Your task to perform on an android device: What's the weather? Image 0: 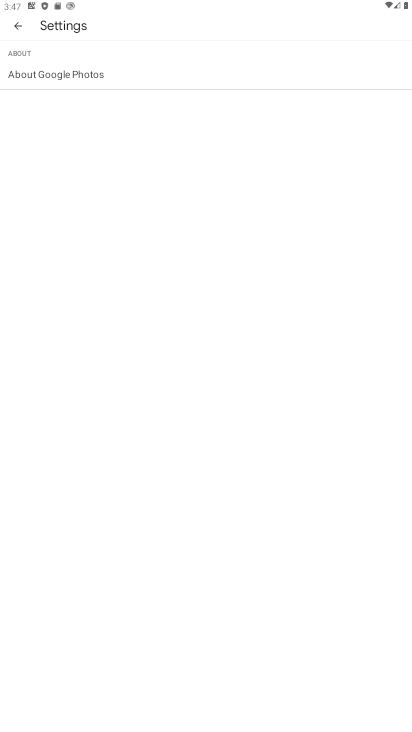
Step 0: press home button
Your task to perform on an android device: What's the weather? Image 1: 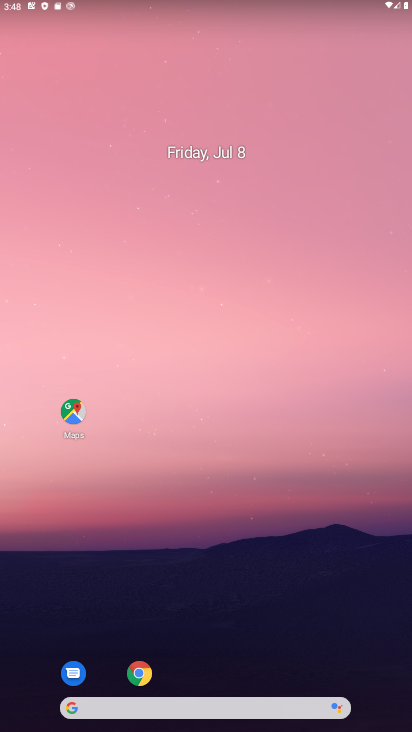
Step 1: click (146, 705)
Your task to perform on an android device: What's the weather? Image 2: 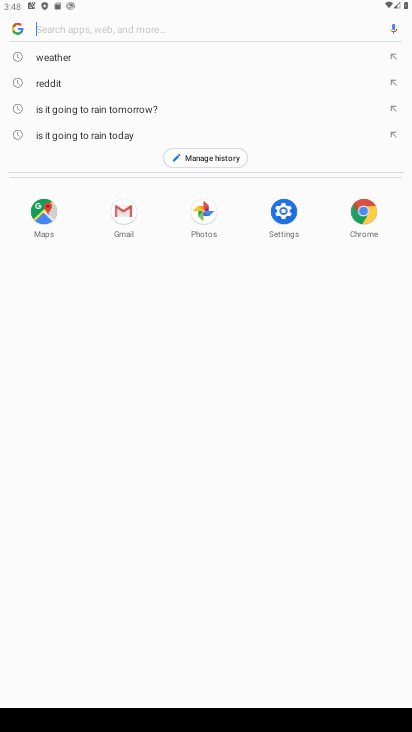
Step 2: click (61, 57)
Your task to perform on an android device: What's the weather? Image 3: 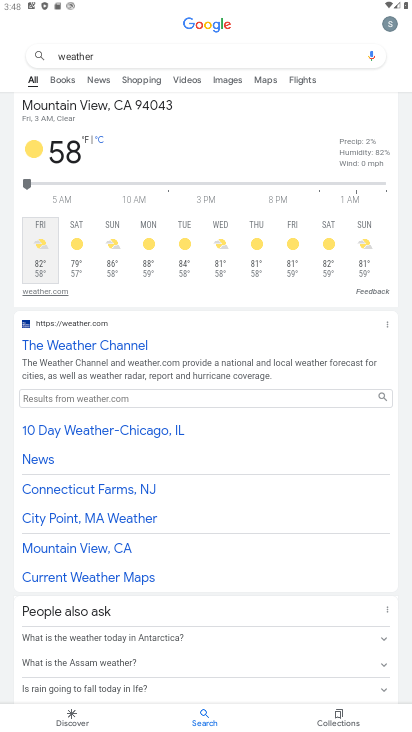
Step 3: task complete